Your task to perform on an android device: Open the web browser Image 0: 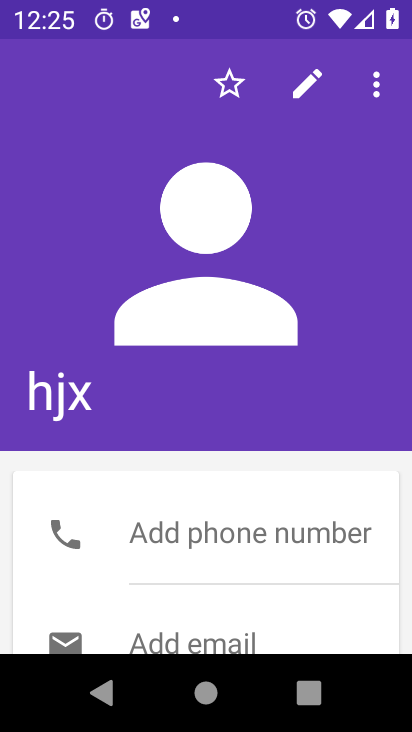
Step 0: press home button
Your task to perform on an android device: Open the web browser Image 1: 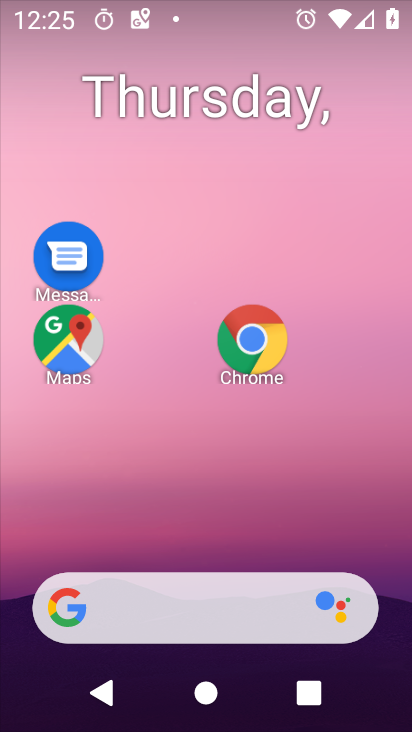
Step 1: drag from (159, 522) to (211, 11)
Your task to perform on an android device: Open the web browser Image 2: 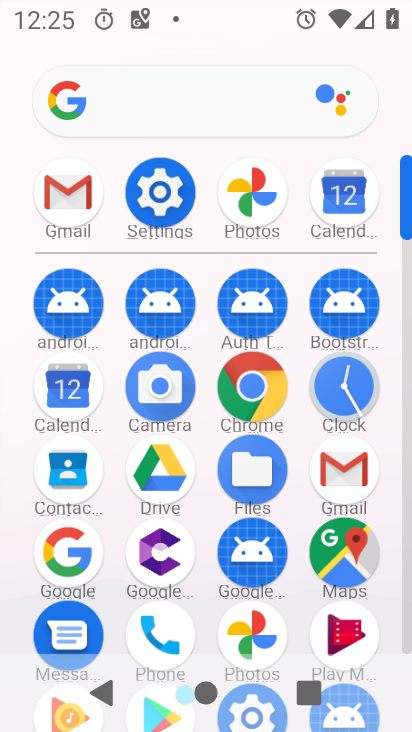
Step 2: click (68, 552)
Your task to perform on an android device: Open the web browser Image 3: 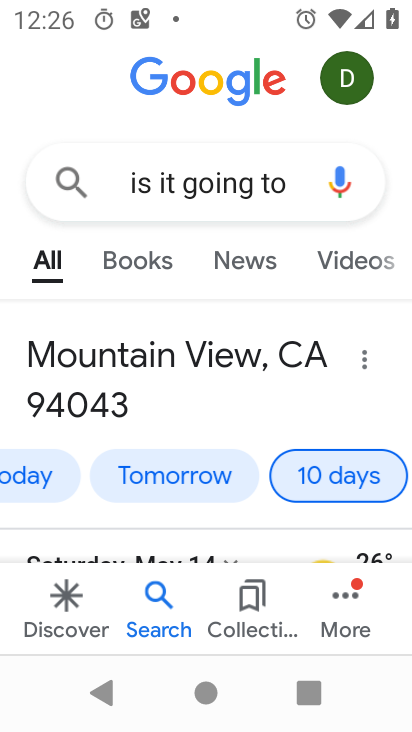
Step 3: task complete